Your task to perform on an android device: Go to eBay Image 0: 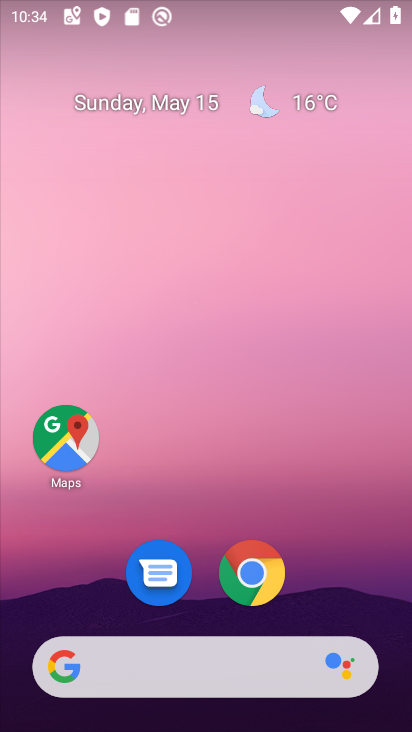
Step 0: drag from (328, 553) to (327, 45)
Your task to perform on an android device: Go to eBay Image 1: 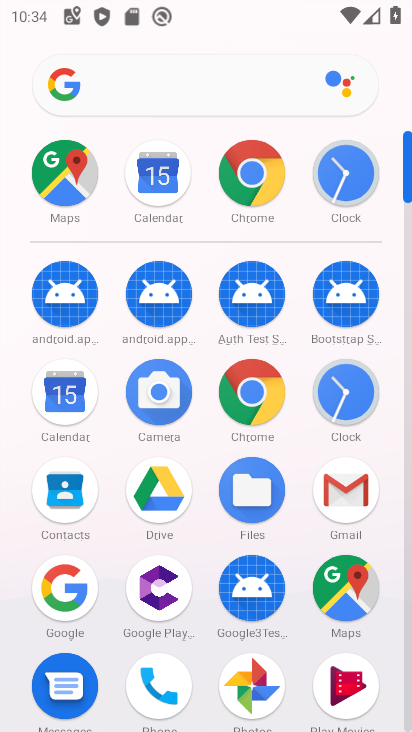
Step 1: click (275, 162)
Your task to perform on an android device: Go to eBay Image 2: 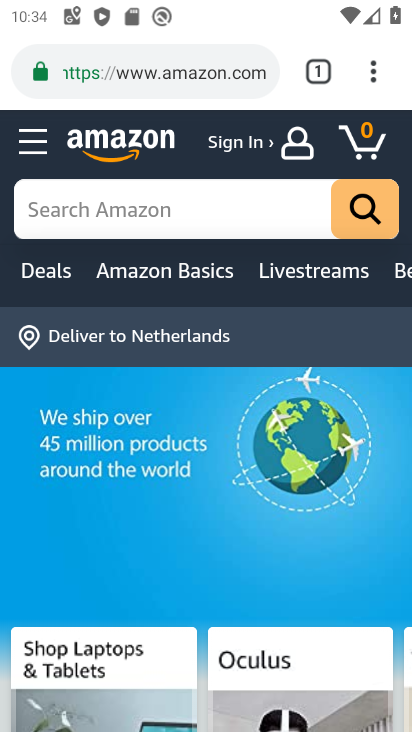
Step 2: drag from (377, 65) to (4, 505)
Your task to perform on an android device: Go to eBay Image 3: 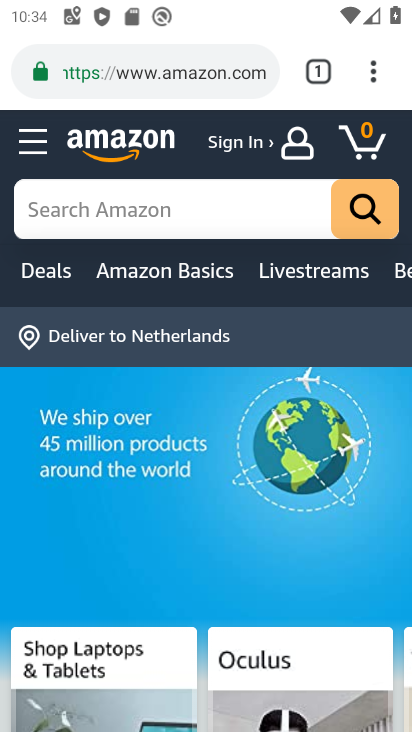
Step 3: click (150, 75)
Your task to perform on an android device: Go to eBay Image 4: 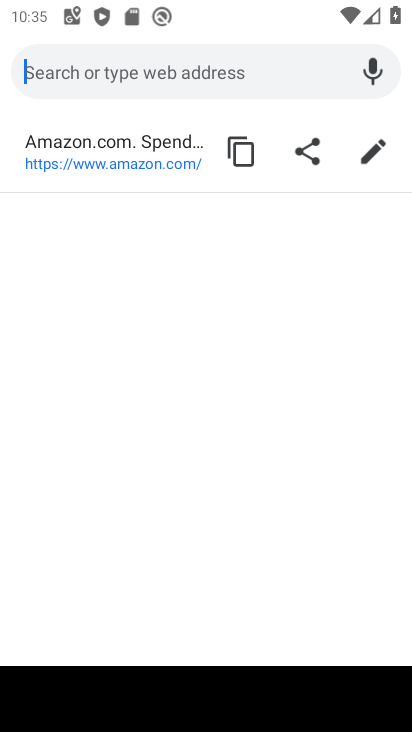
Step 4: type "eBay"
Your task to perform on an android device: Go to eBay Image 5: 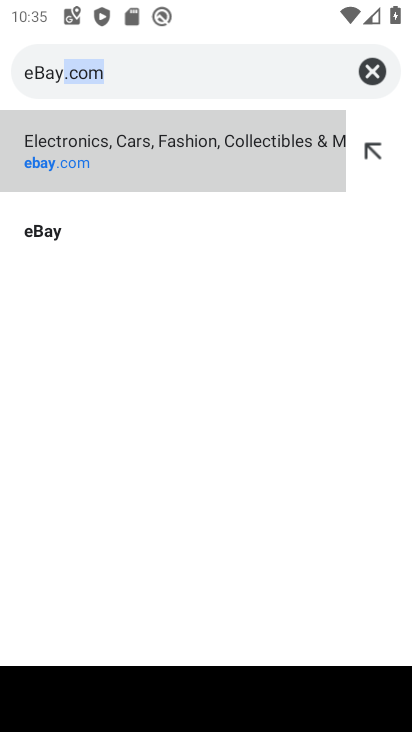
Step 5: click (166, 142)
Your task to perform on an android device: Go to eBay Image 6: 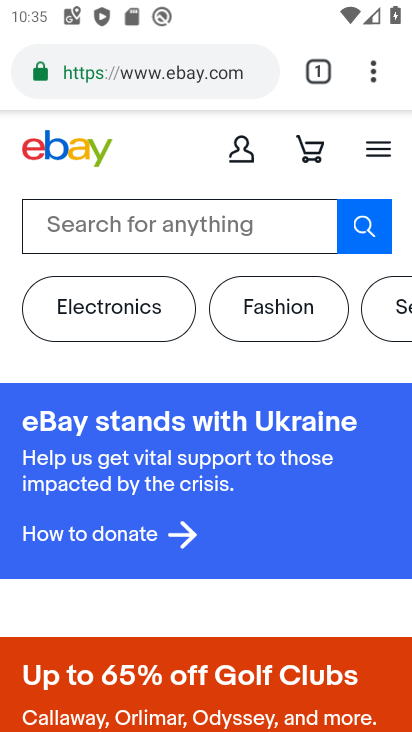
Step 6: task complete